Your task to perform on an android device: What's the weather? Image 0: 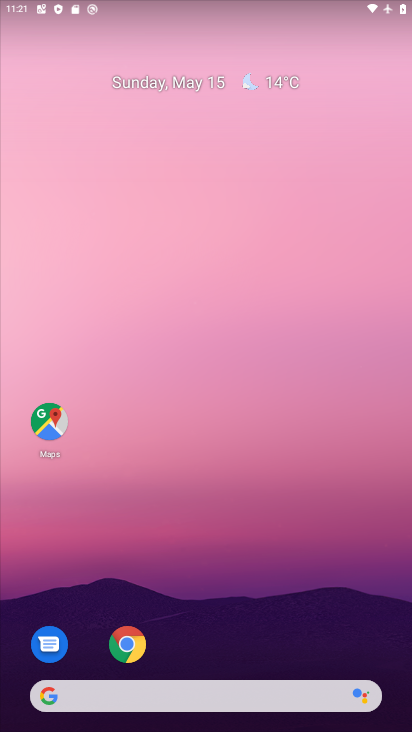
Step 0: click (127, 662)
Your task to perform on an android device: What's the weather? Image 1: 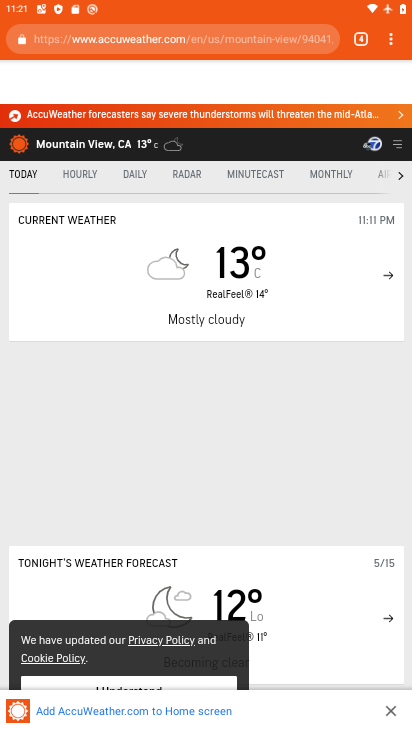
Step 1: task complete